Your task to perform on an android device: Go to Reddit.com Image 0: 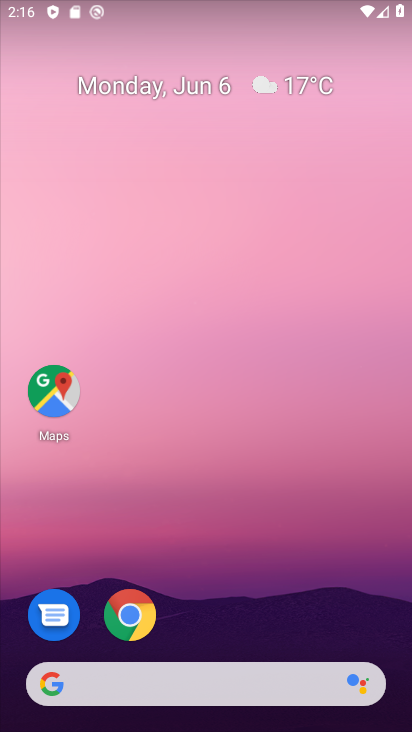
Step 0: click (119, 627)
Your task to perform on an android device: Go to Reddit.com Image 1: 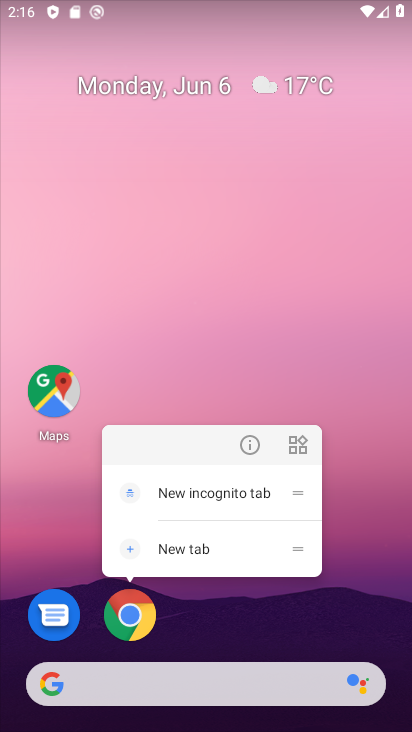
Step 1: click (129, 615)
Your task to perform on an android device: Go to Reddit.com Image 2: 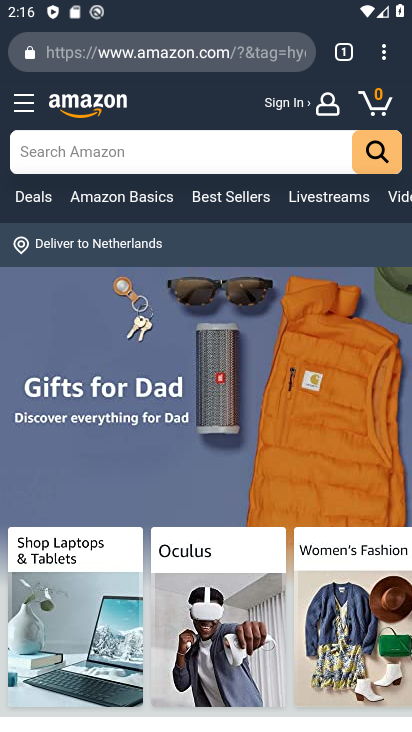
Step 2: click (180, 58)
Your task to perform on an android device: Go to Reddit.com Image 3: 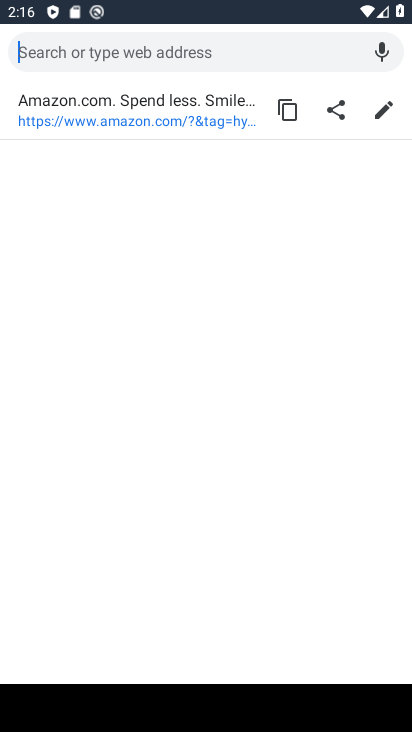
Step 3: type "Reddit.com"
Your task to perform on an android device: Go to Reddit.com Image 4: 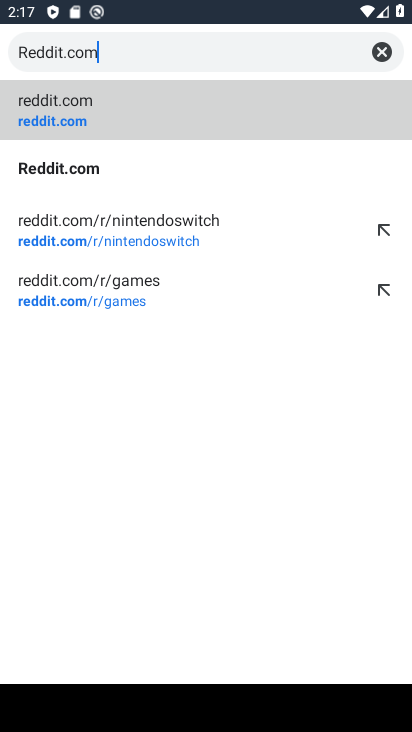
Step 4: click (62, 92)
Your task to perform on an android device: Go to Reddit.com Image 5: 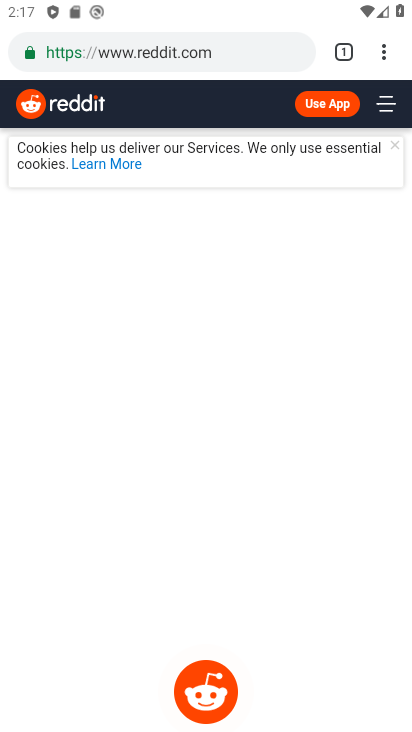
Step 5: task complete